Your task to perform on an android device: Show me recent news Image 0: 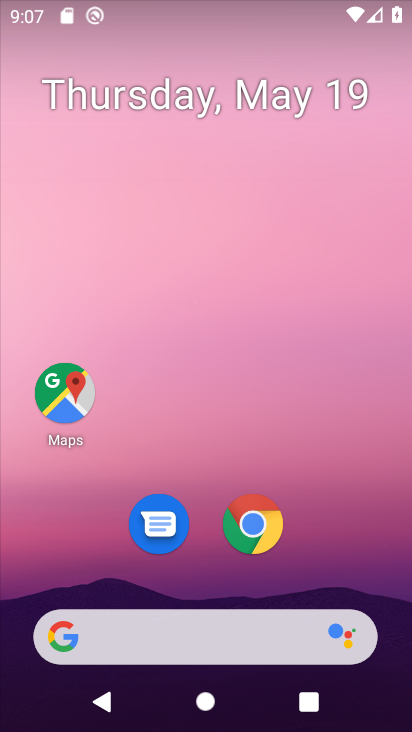
Step 0: click (237, 631)
Your task to perform on an android device: Show me recent news Image 1: 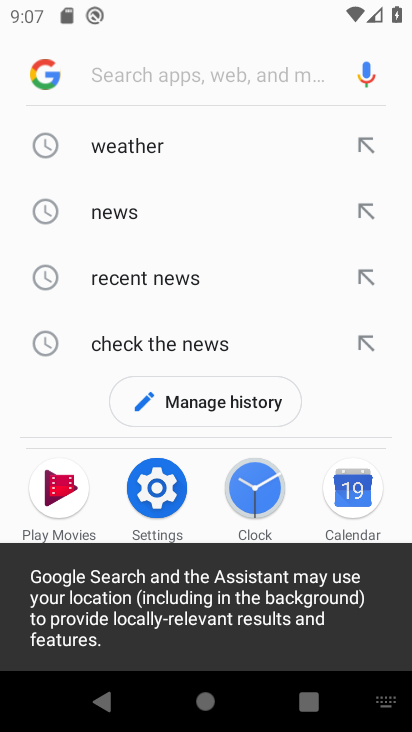
Step 1: click (89, 278)
Your task to perform on an android device: Show me recent news Image 2: 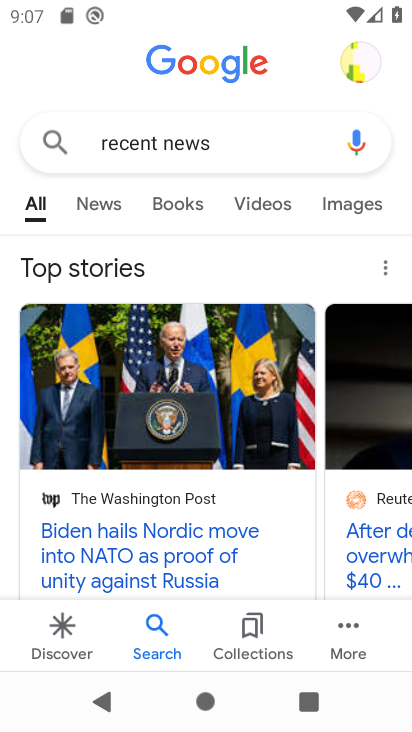
Step 2: task complete